Your task to perform on an android device: Open Yahoo.com Image 0: 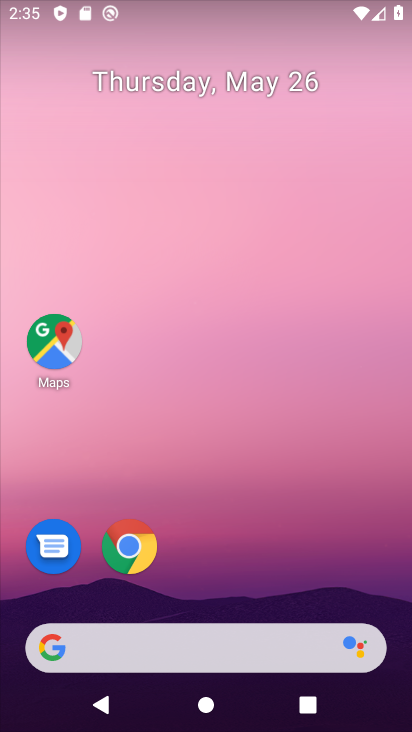
Step 0: click (143, 539)
Your task to perform on an android device: Open Yahoo.com Image 1: 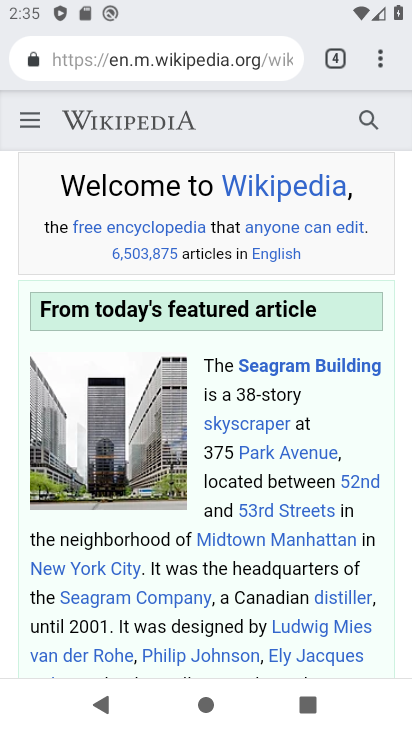
Step 1: click (325, 56)
Your task to perform on an android device: Open Yahoo.com Image 2: 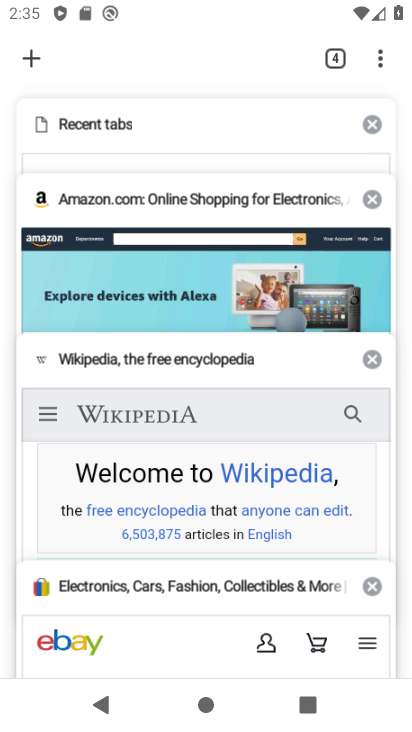
Step 2: click (33, 63)
Your task to perform on an android device: Open Yahoo.com Image 3: 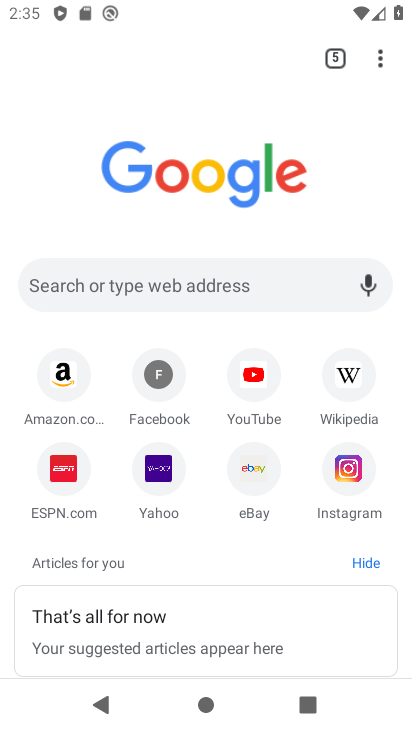
Step 3: click (154, 470)
Your task to perform on an android device: Open Yahoo.com Image 4: 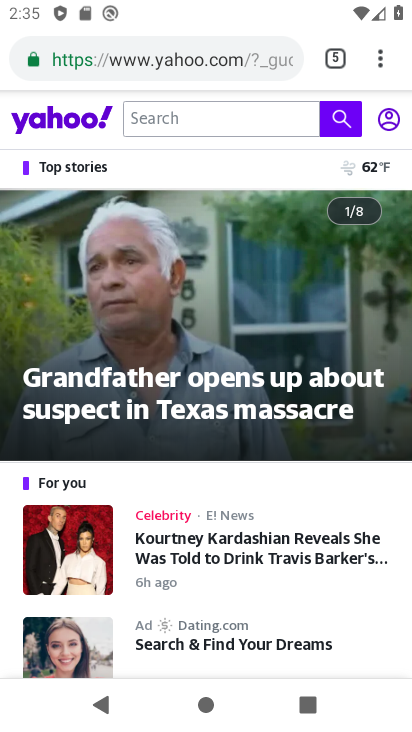
Step 4: task complete